Your task to perform on an android device: Open Google Chrome Image 0: 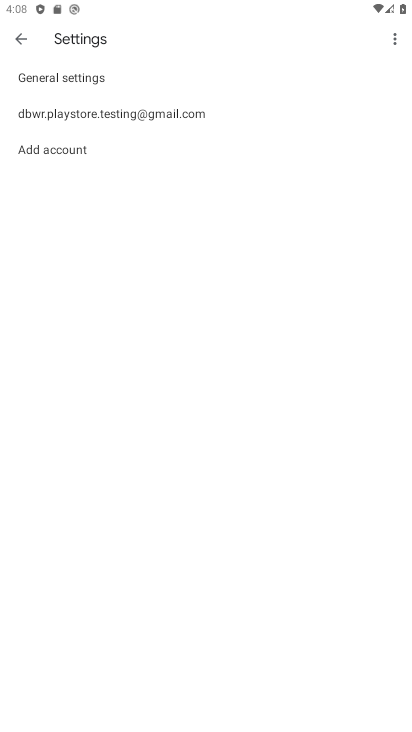
Step 0: press home button
Your task to perform on an android device: Open Google Chrome Image 1: 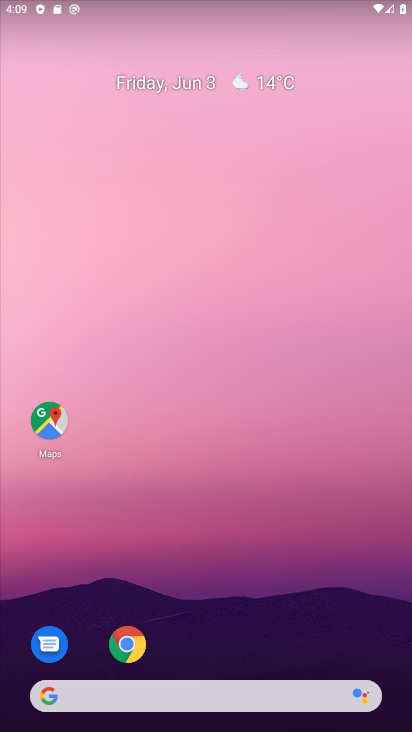
Step 1: click (128, 644)
Your task to perform on an android device: Open Google Chrome Image 2: 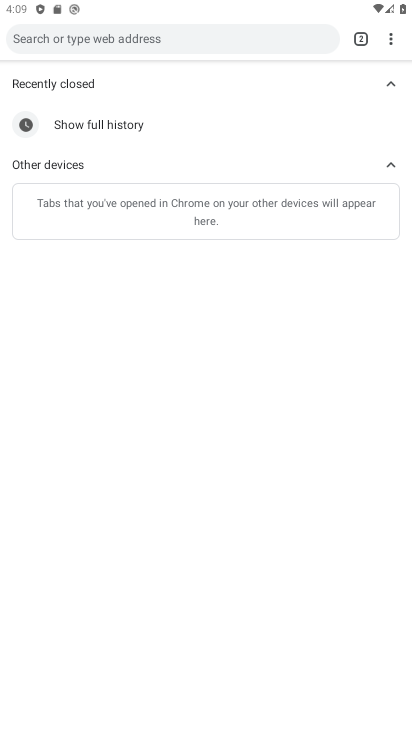
Step 2: task complete